Your task to perform on an android device: Is it going to rain tomorrow? Image 0: 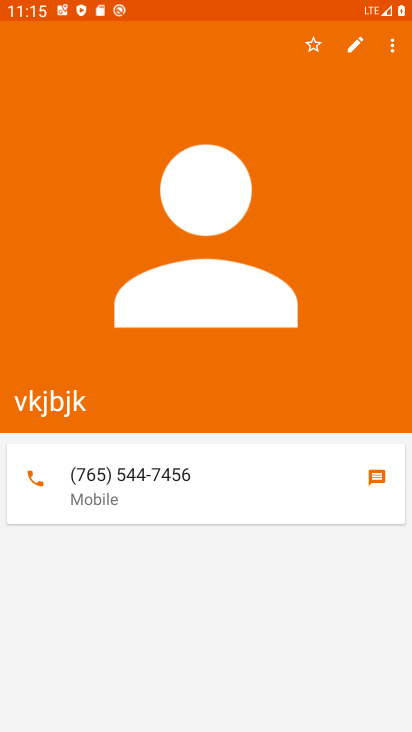
Step 0: press home button
Your task to perform on an android device: Is it going to rain tomorrow? Image 1: 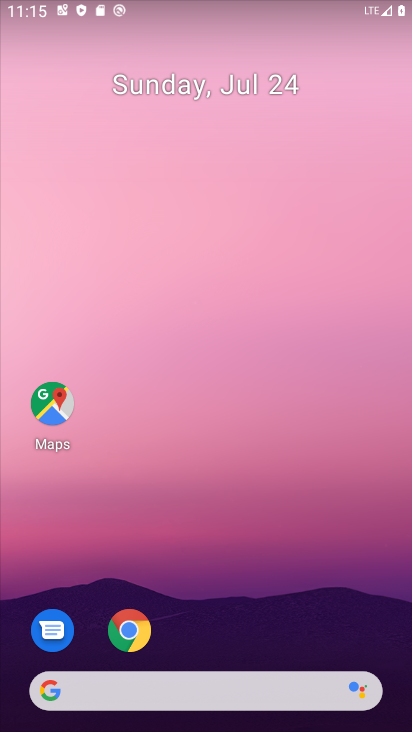
Step 1: drag from (203, 613) to (169, 126)
Your task to perform on an android device: Is it going to rain tomorrow? Image 2: 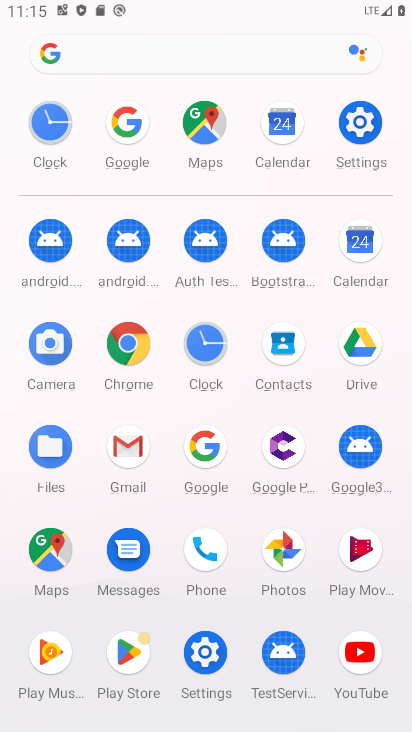
Step 2: click (202, 445)
Your task to perform on an android device: Is it going to rain tomorrow? Image 3: 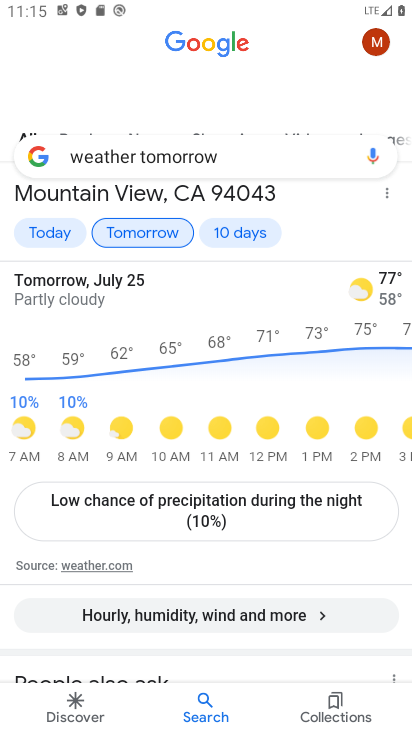
Step 3: task complete